Your task to perform on an android device: What's the news in Jamaica? Image 0: 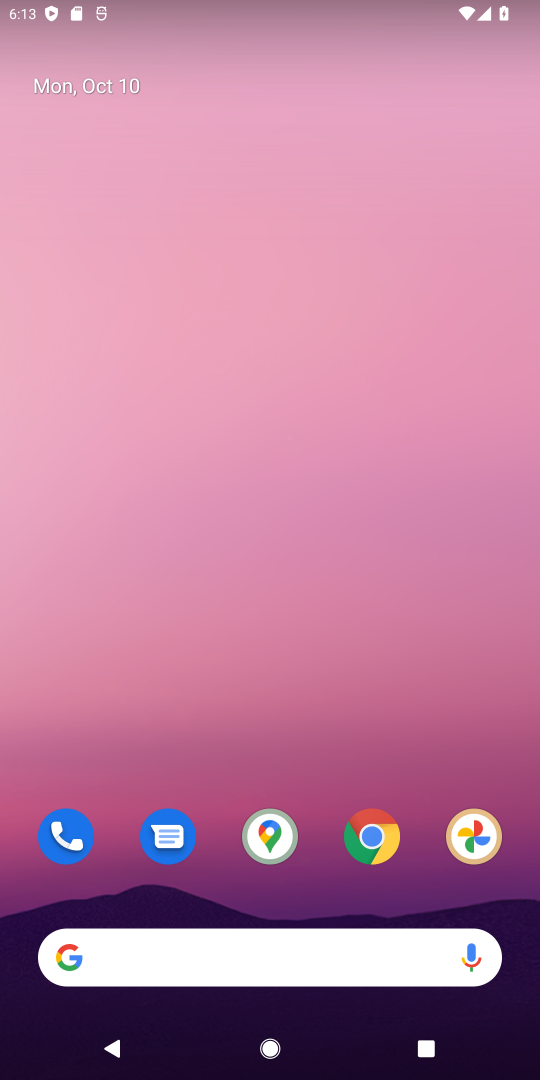
Step 0: click (377, 839)
Your task to perform on an android device: What's the news in Jamaica? Image 1: 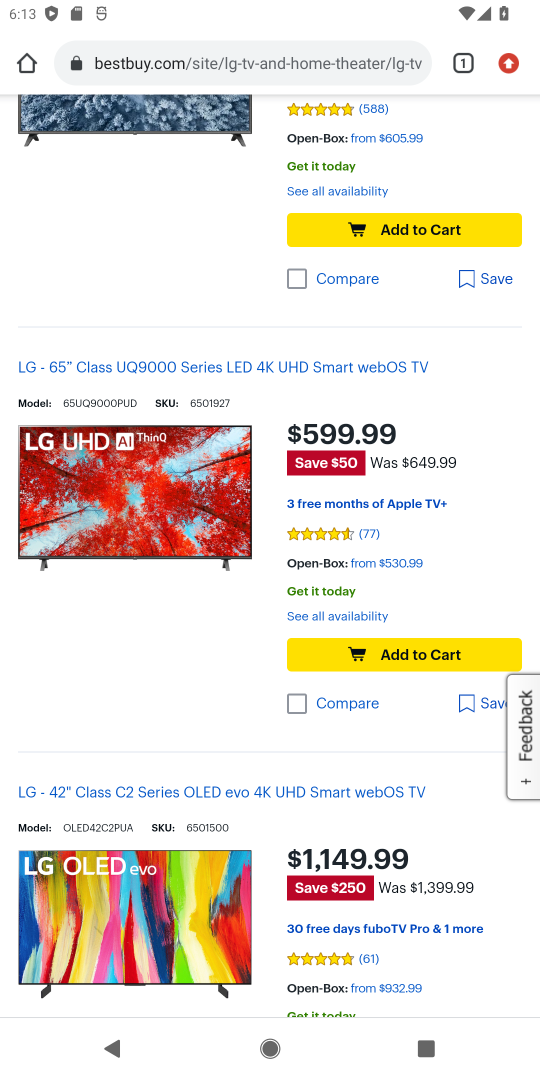
Step 1: click (238, 44)
Your task to perform on an android device: What's the news in Jamaica? Image 2: 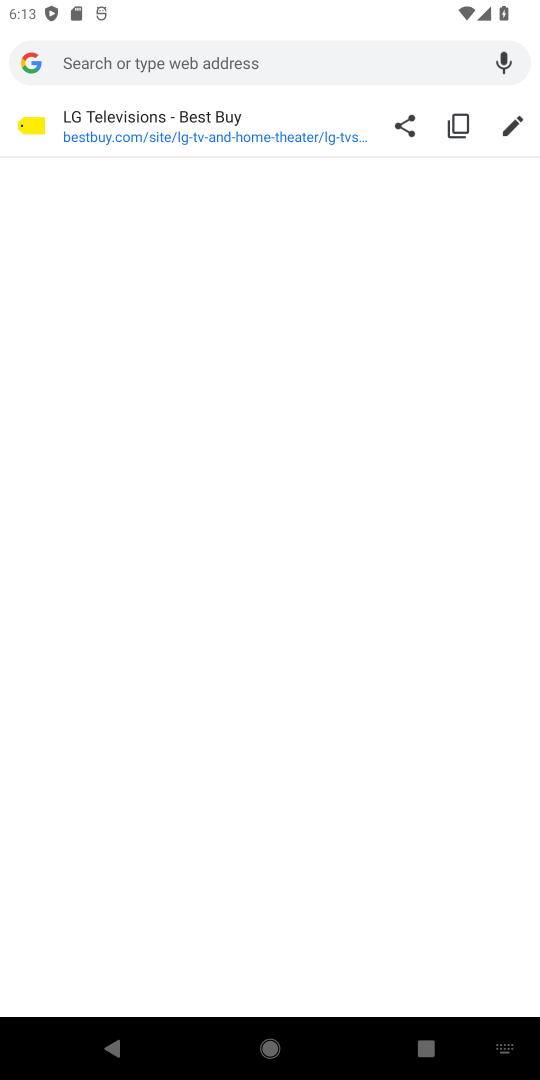
Step 2: type "news in Jamaica?"
Your task to perform on an android device: What's the news in Jamaica? Image 3: 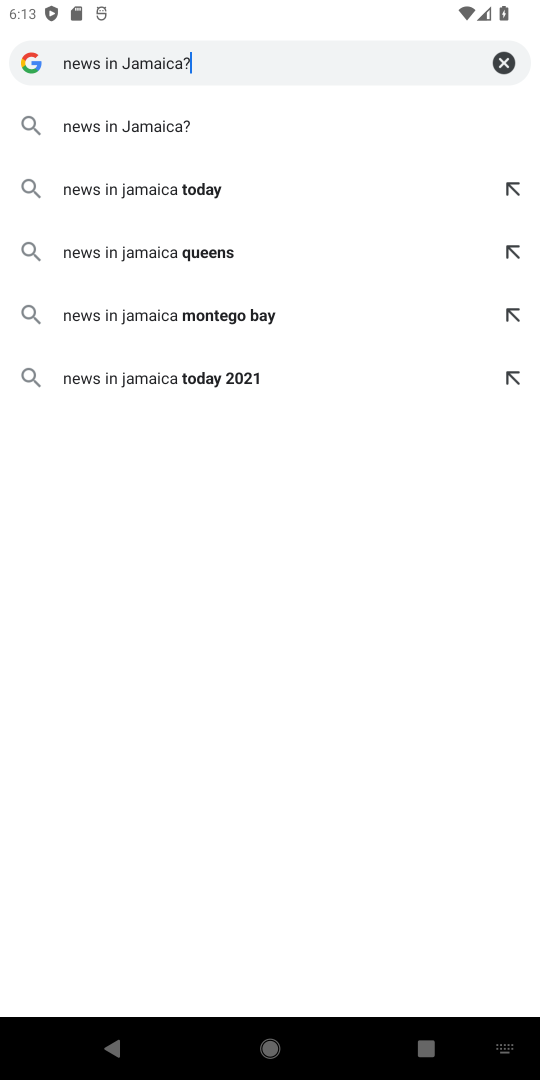
Step 3: click (126, 121)
Your task to perform on an android device: What's the news in Jamaica? Image 4: 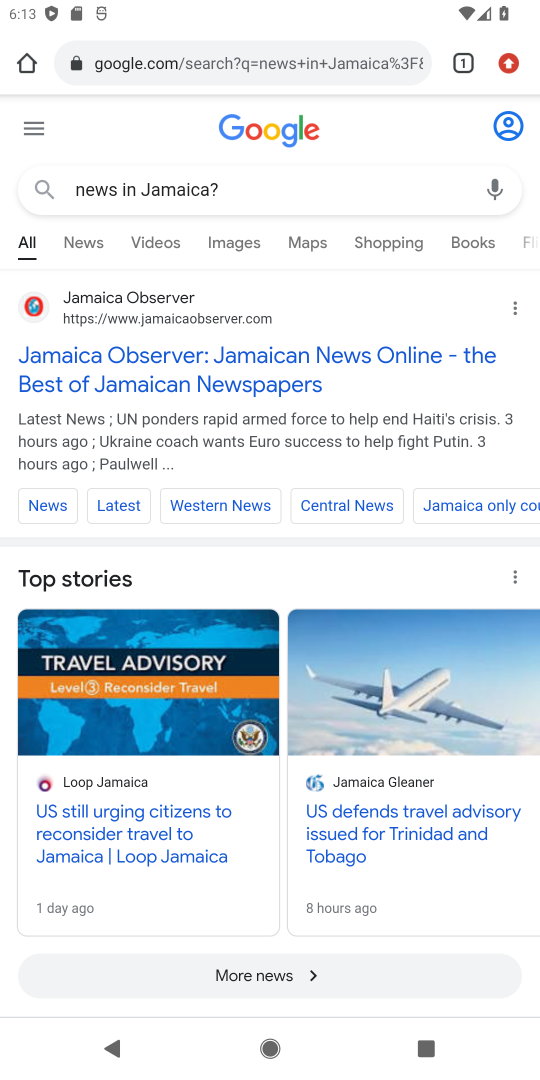
Step 4: click (90, 366)
Your task to perform on an android device: What's the news in Jamaica? Image 5: 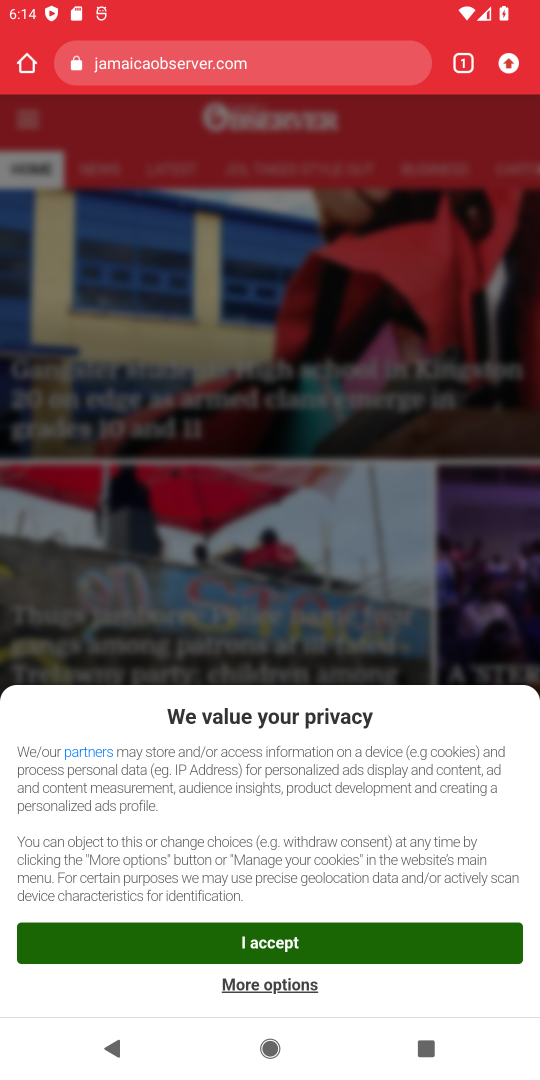
Step 5: click (251, 947)
Your task to perform on an android device: What's the news in Jamaica? Image 6: 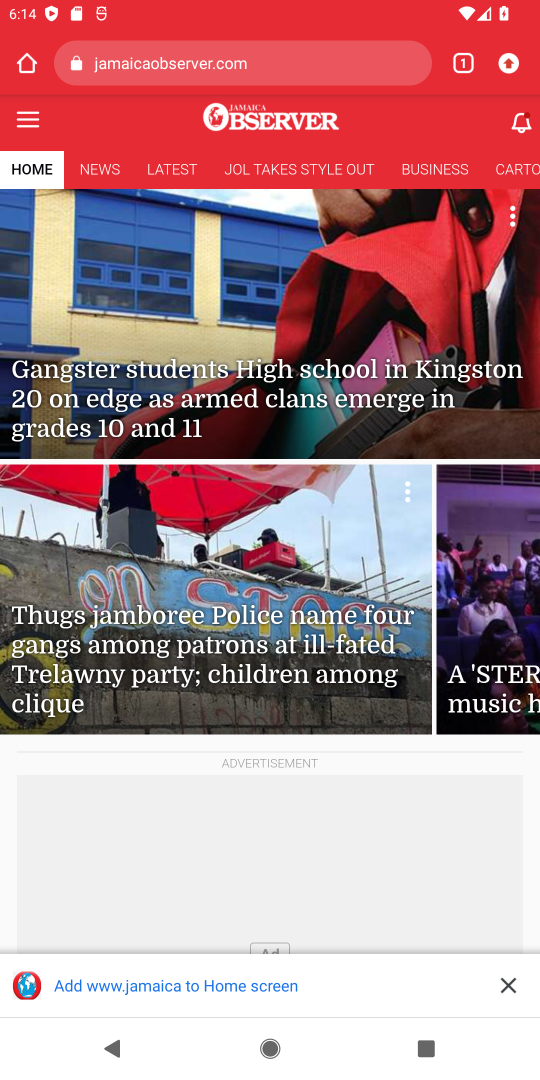
Step 6: click (164, 358)
Your task to perform on an android device: What's the news in Jamaica? Image 7: 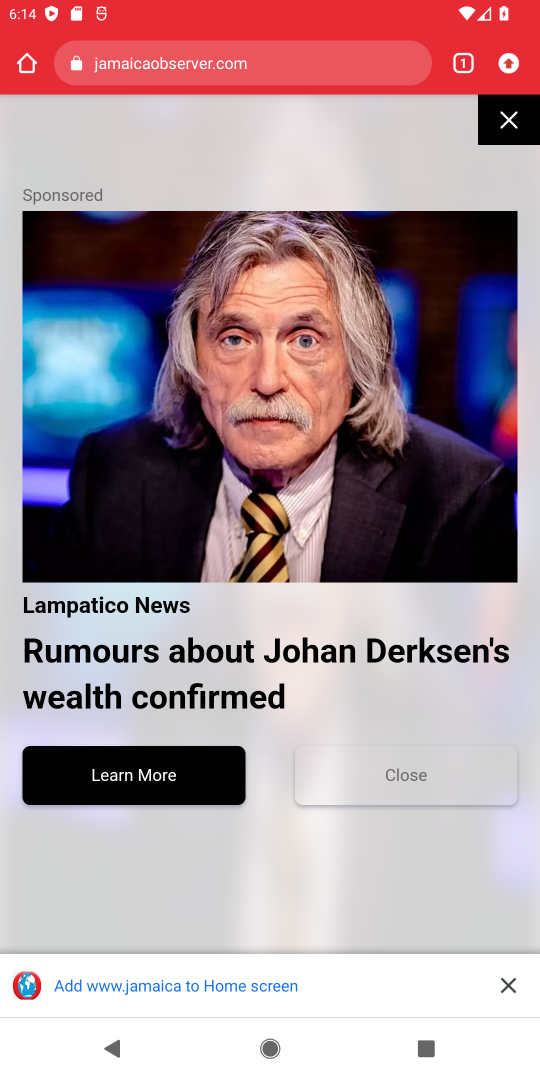
Step 7: drag from (277, 759) to (276, 265)
Your task to perform on an android device: What's the news in Jamaica? Image 8: 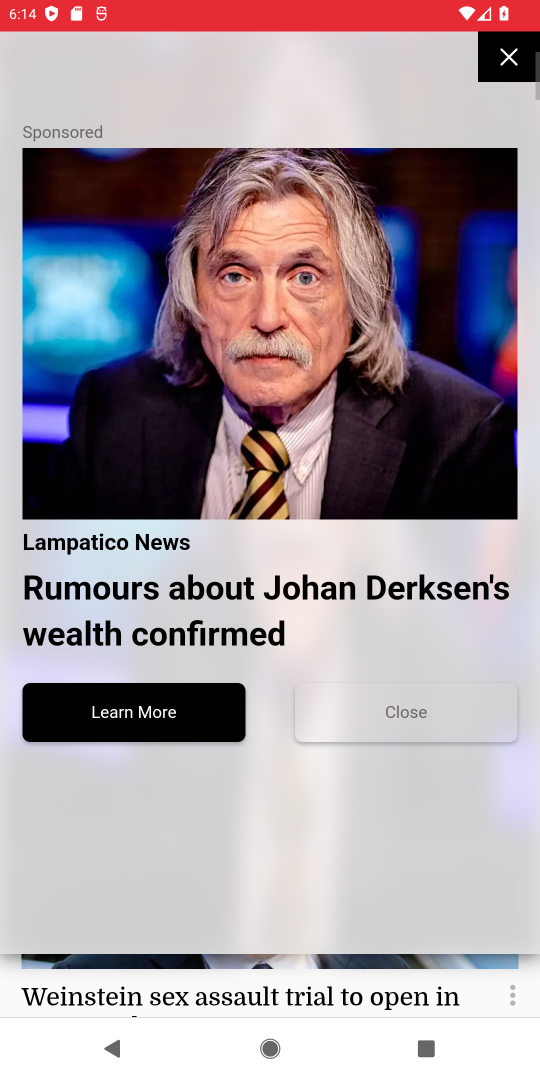
Step 8: drag from (266, 778) to (293, 262)
Your task to perform on an android device: What's the news in Jamaica? Image 9: 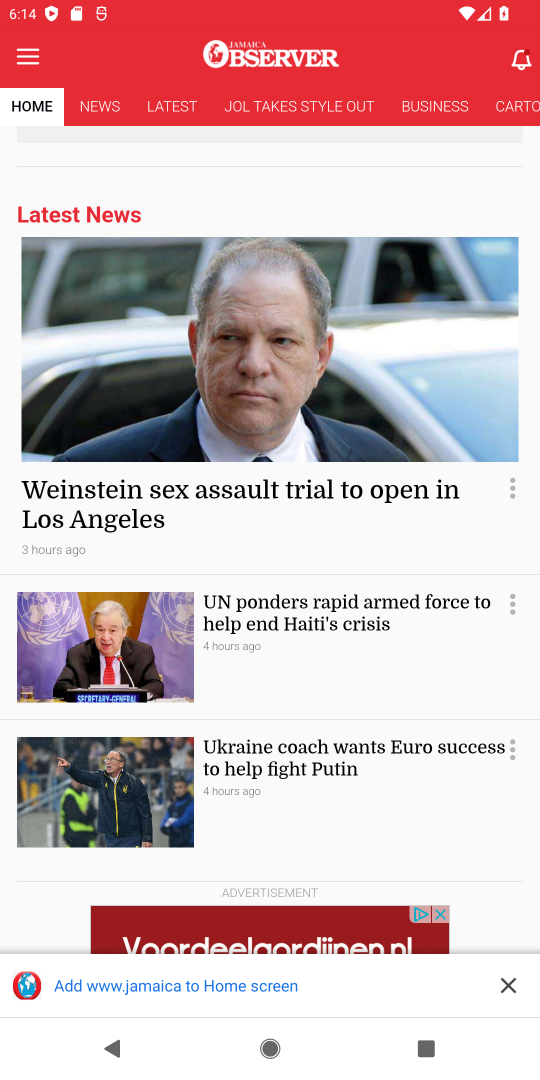
Step 9: click (514, 54)
Your task to perform on an android device: What's the news in Jamaica? Image 10: 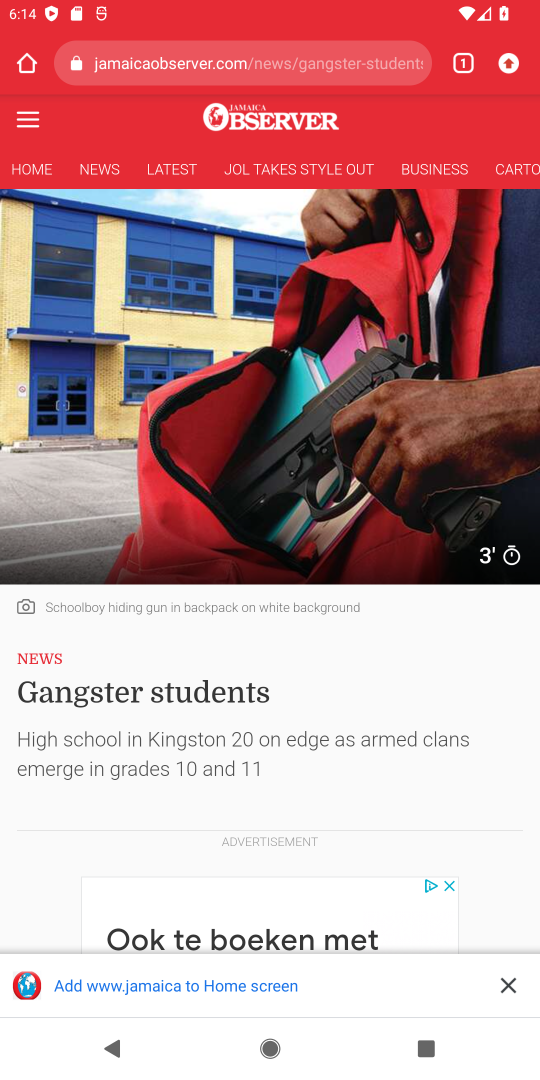
Step 10: drag from (276, 797) to (304, 163)
Your task to perform on an android device: What's the news in Jamaica? Image 11: 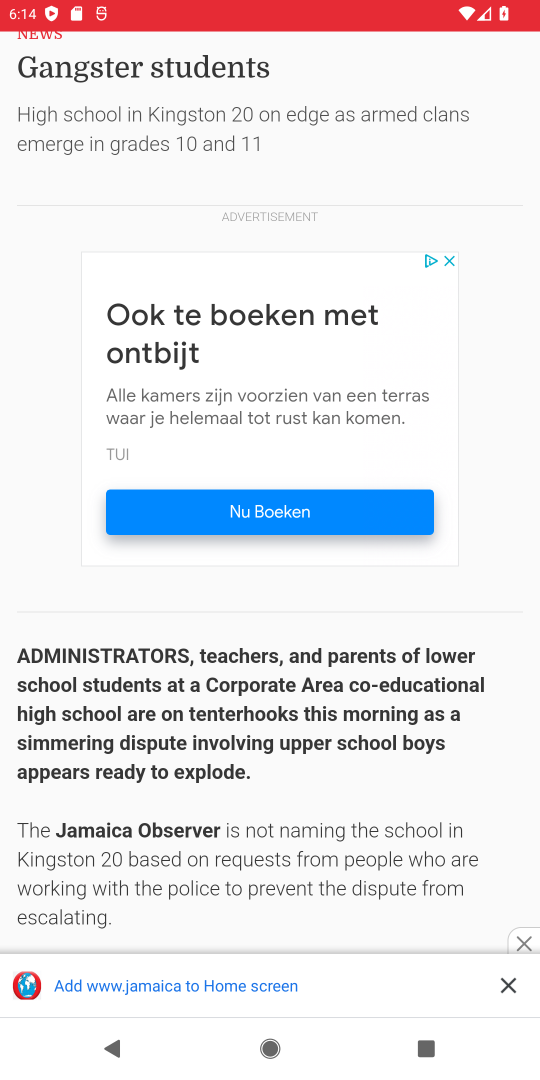
Step 11: drag from (264, 730) to (276, 184)
Your task to perform on an android device: What's the news in Jamaica? Image 12: 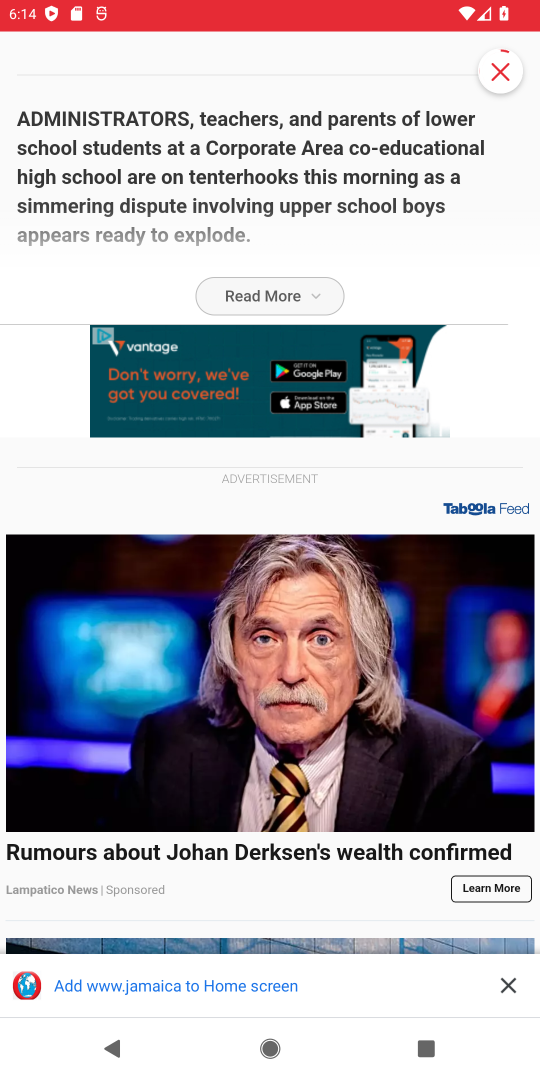
Step 12: click (251, 296)
Your task to perform on an android device: What's the news in Jamaica? Image 13: 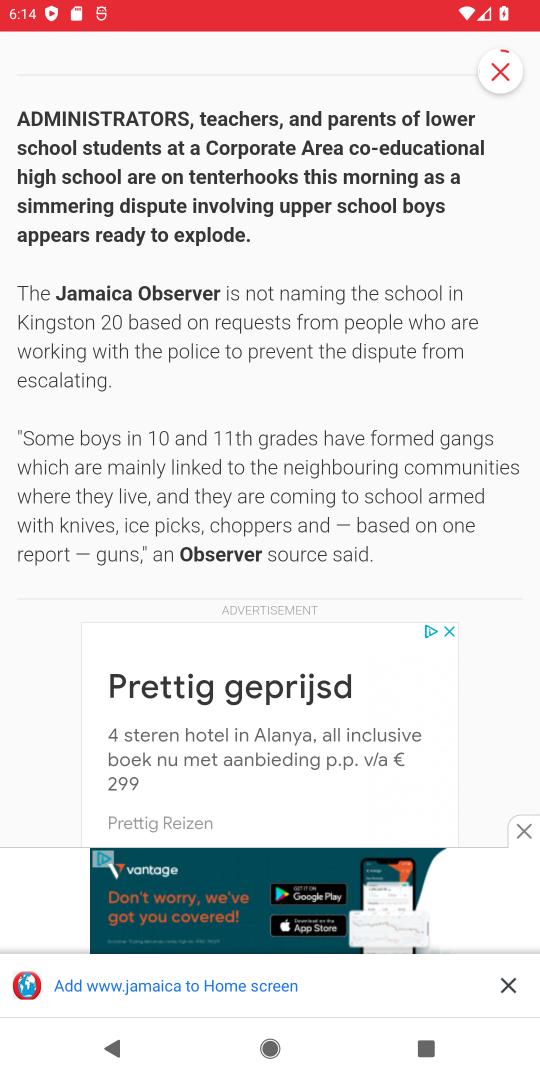
Step 13: drag from (294, 552) to (303, 188)
Your task to perform on an android device: What's the news in Jamaica? Image 14: 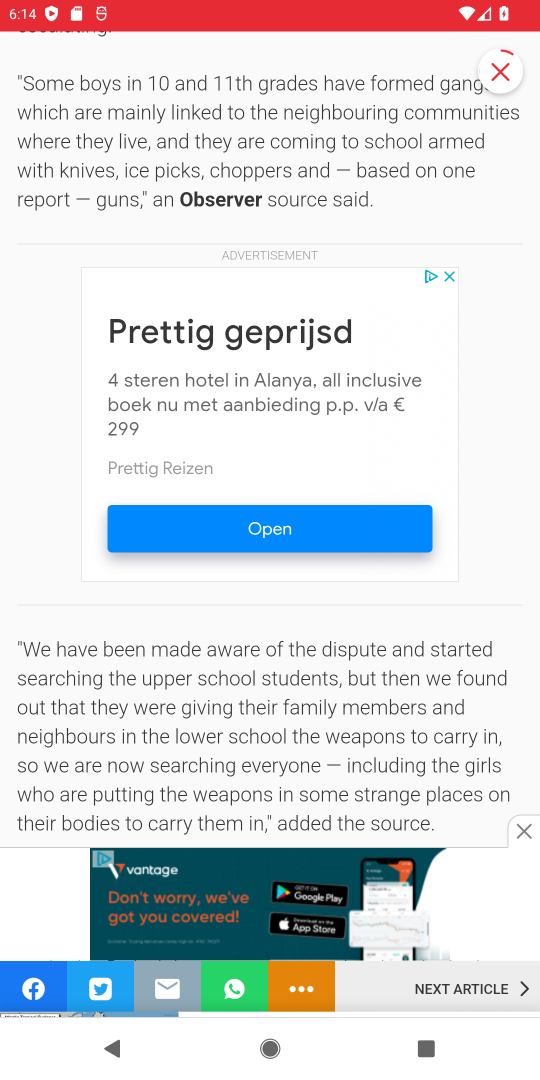
Step 14: drag from (312, 705) to (323, 197)
Your task to perform on an android device: What's the news in Jamaica? Image 15: 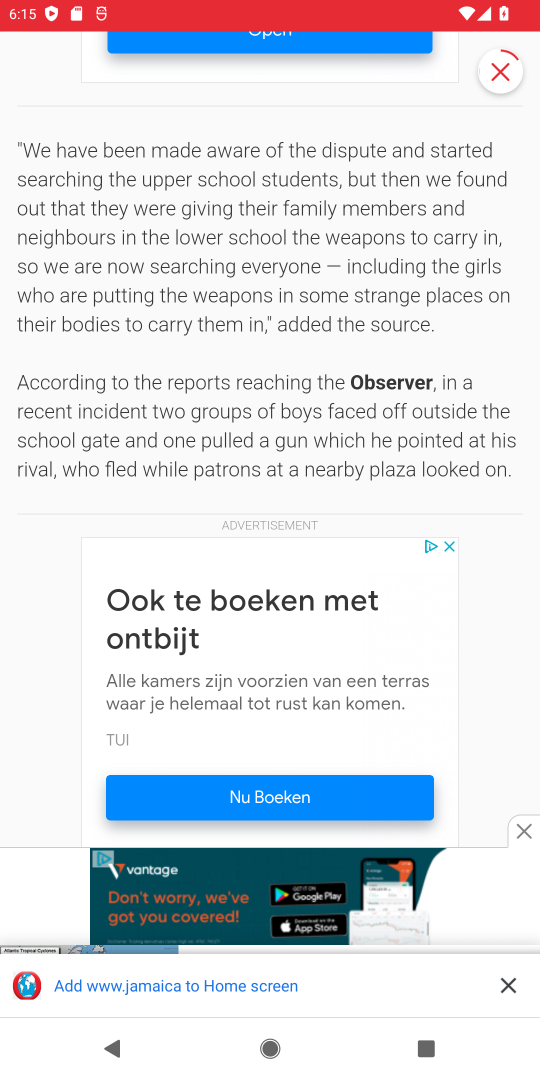
Step 15: drag from (282, 454) to (290, 46)
Your task to perform on an android device: What's the news in Jamaica? Image 16: 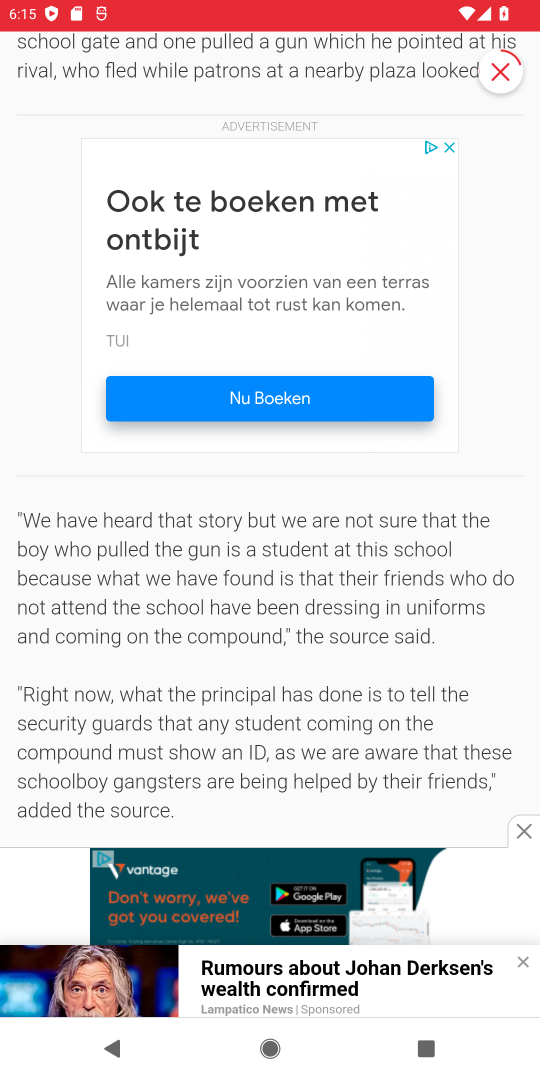
Step 16: click (523, 825)
Your task to perform on an android device: What's the news in Jamaica? Image 17: 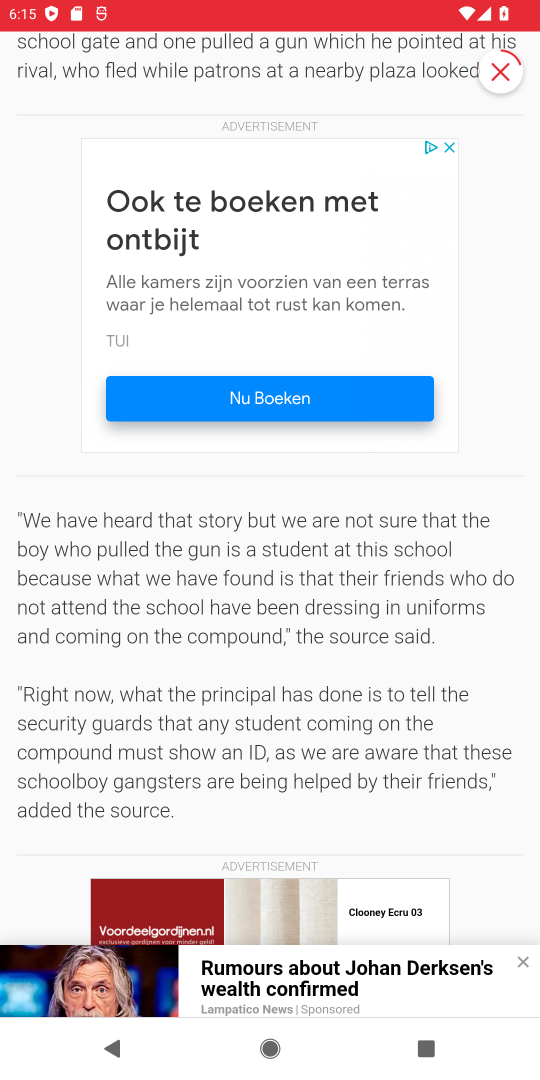
Step 17: task complete